Your task to perform on an android device: change the clock display to analog Image 0: 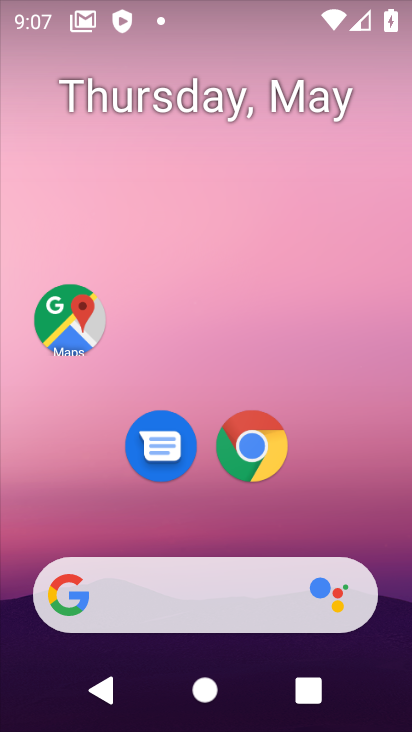
Step 0: drag from (396, 532) to (347, 123)
Your task to perform on an android device: change the clock display to analog Image 1: 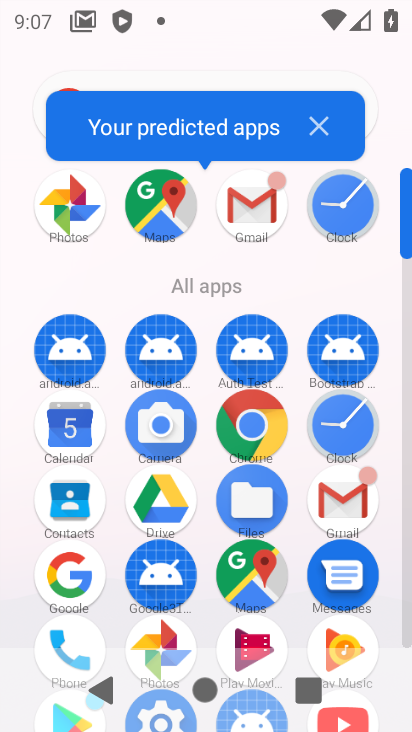
Step 1: click (329, 424)
Your task to perform on an android device: change the clock display to analog Image 2: 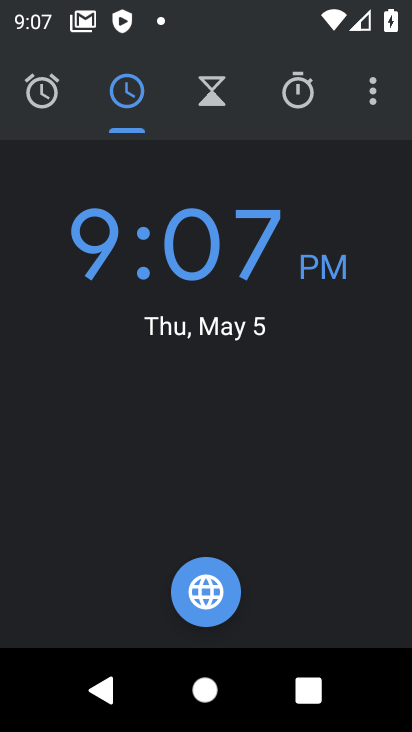
Step 2: click (373, 108)
Your task to perform on an android device: change the clock display to analog Image 3: 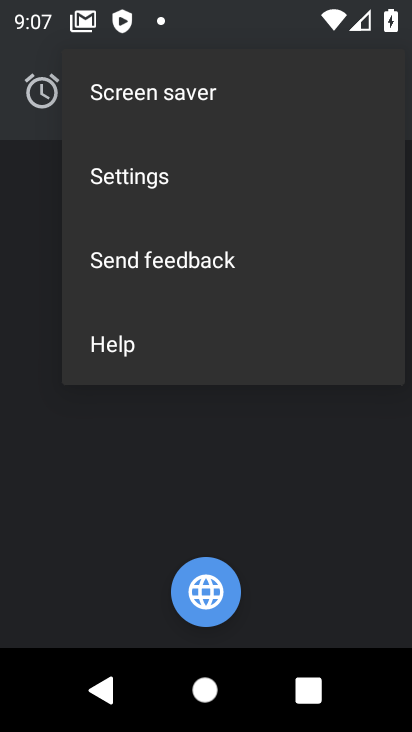
Step 3: click (313, 173)
Your task to perform on an android device: change the clock display to analog Image 4: 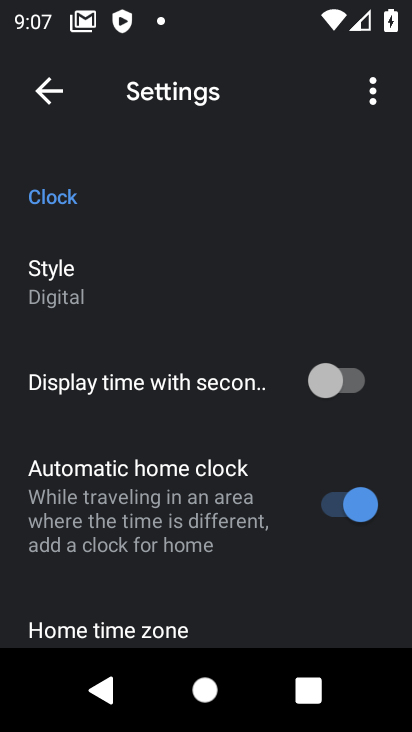
Step 4: click (270, 281)
Your task to perform on an android device: change the clock display to analog Image 5: 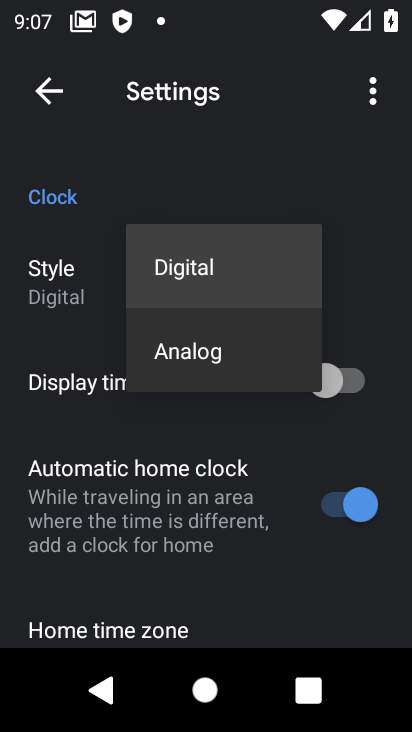
Step 5: click (251, 328)
Your task to perform on an android device: change the clock display to analog Image 6: 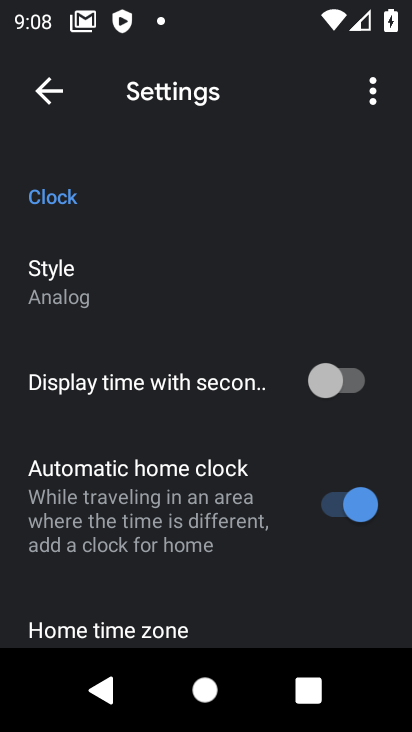
Step 6: task complete